Your task to perform on an android device: open chrome and create a bookmark for the current page Image 0: 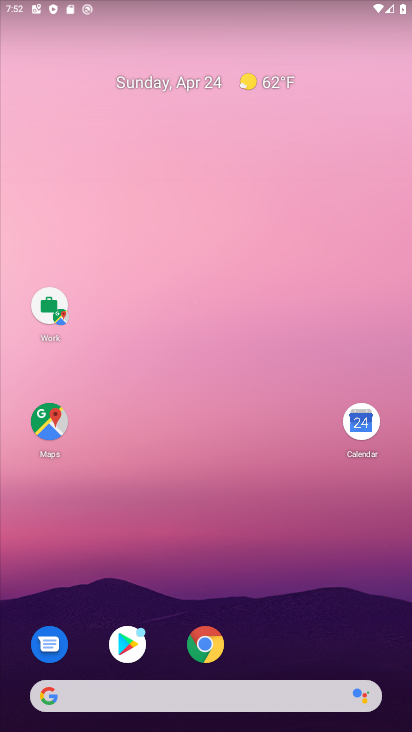
Step 0: drag from (294, 720) to (265, 116)
Your task to perform on an android device: open chrome and create a bookmark for the current page Image 1: 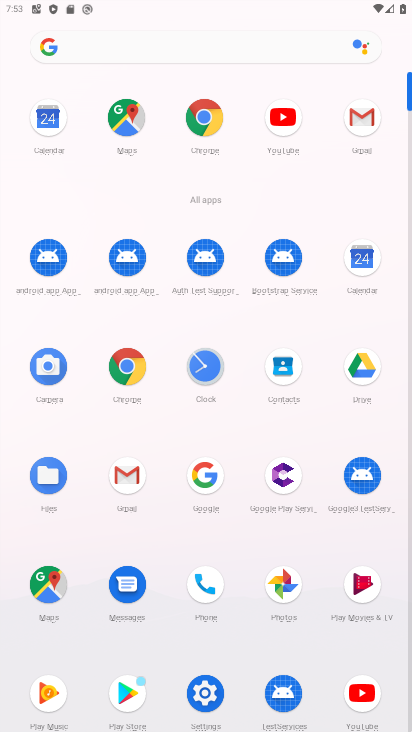
Step 1: click (212, 116)
Your task to perform on an android device: open chrome and create a bookmark for the current page Image 2: 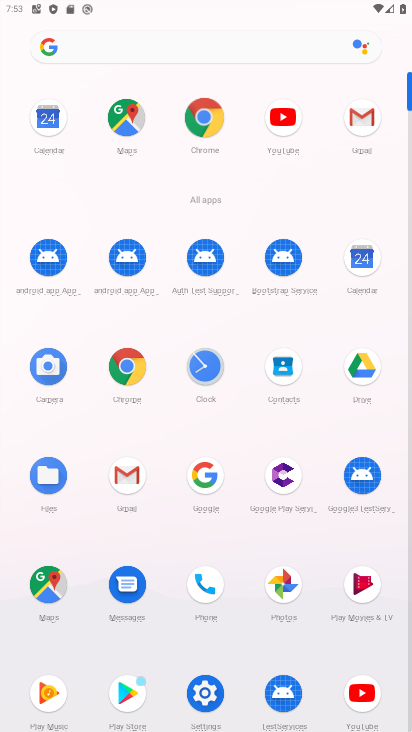
Step 2: click (212, 116)
Your task to perform on an android device: open chrome and create a bookmark for the current page Image 3: 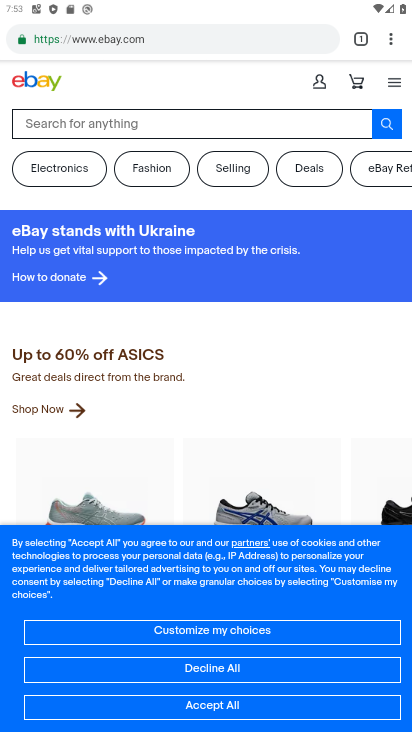
Step 3: drag from (391, 36) to (166, 116)
Your task to perform on an android device: open chrome and create a bookmark for the current page Image 4: 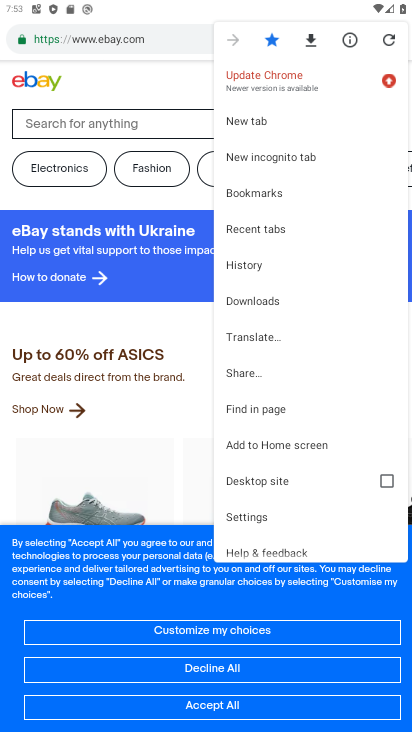
Step 4: drag from (160, 110) to (242, 202)
Your task to perform on an android device: open chrome and create a bookmark for the current page Image 5: 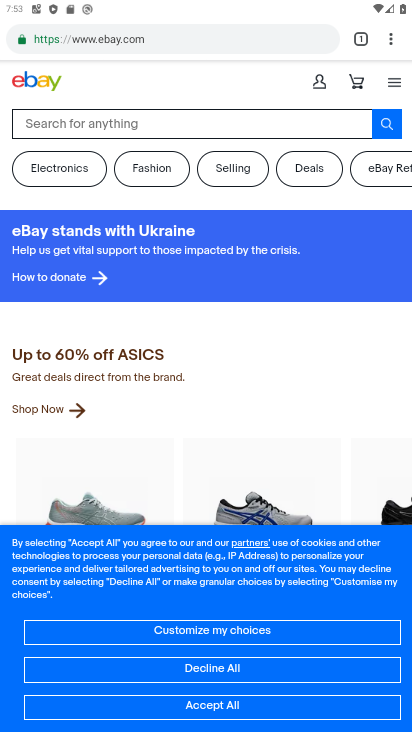
Step 5: click (389, 38)
Your task to perform on an android device: open chrome and create a bookmark for the current page Image 6: 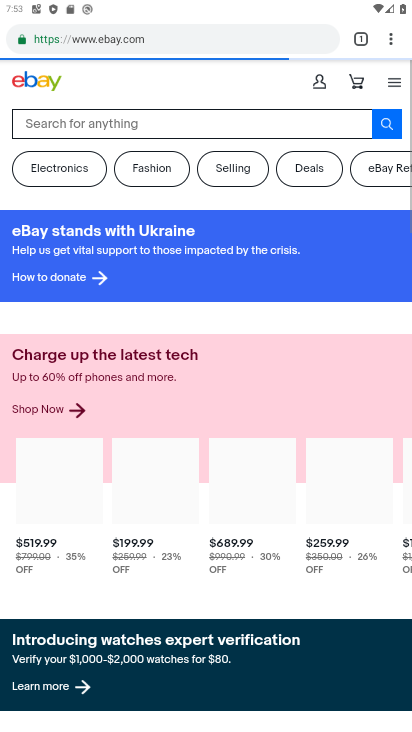
Step 6: drag from (388, 41) to (278, 191)
Your task to perform on an android device: open chrome and create a bookmark for the current page Image 7: 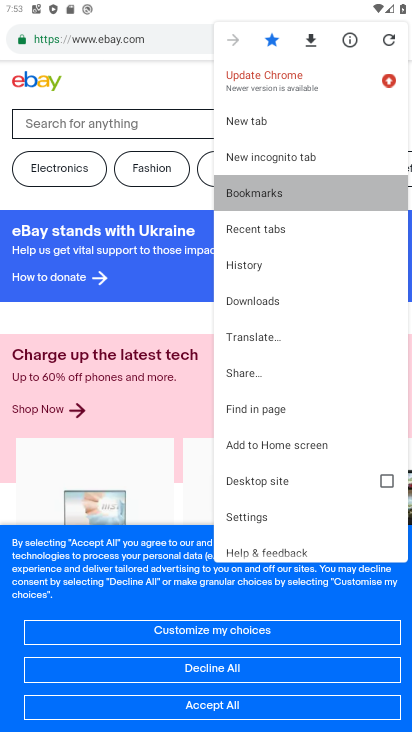
Step 7: click (277, 192)
Your task to perform on an android device: open chrome and create a bookmark for the current page Image 8: 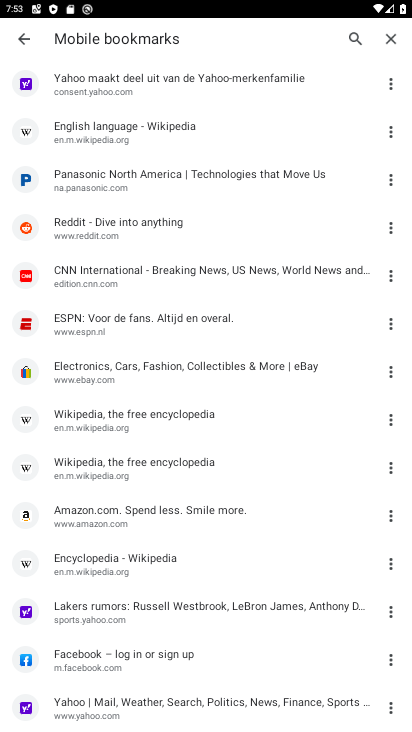
Step 8: task complete